Your task to perform on an android device: star an email in the gmail app Image 0: 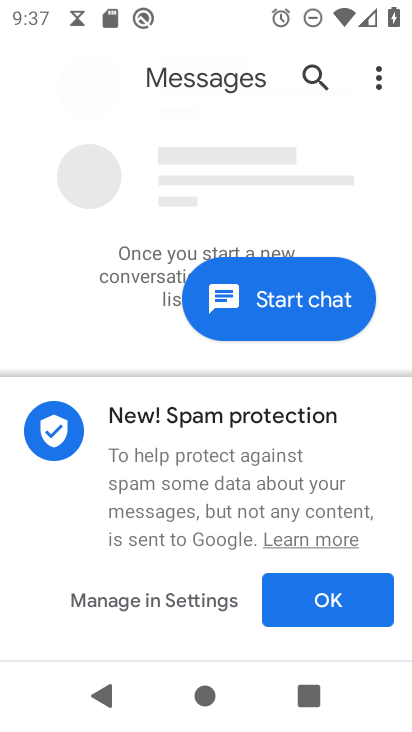
Step 0: press home button
Your task to perform on an android device: star an email in the gmail app Image 1: 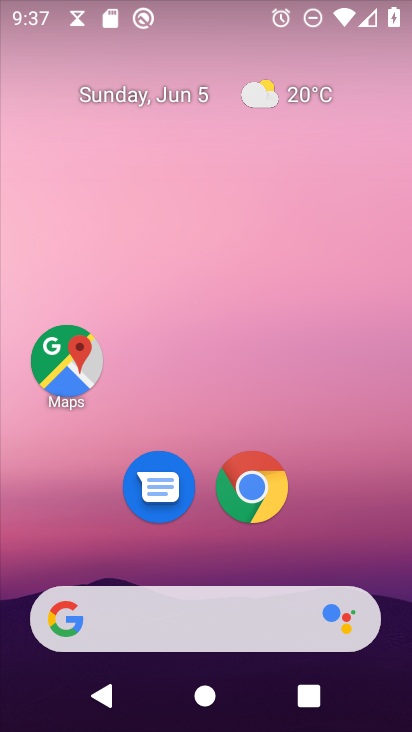
Step 1: drag from (150, 566) to (222, 140)
Your task to perform on an android device: star an email in the gmail app Image 2: 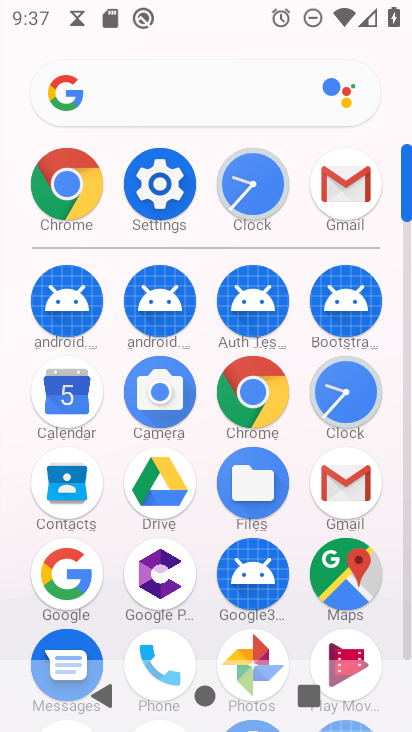
Step 2: click (338, 184)
Your task to perform on an android device: star an email in the gmail app Image 3: 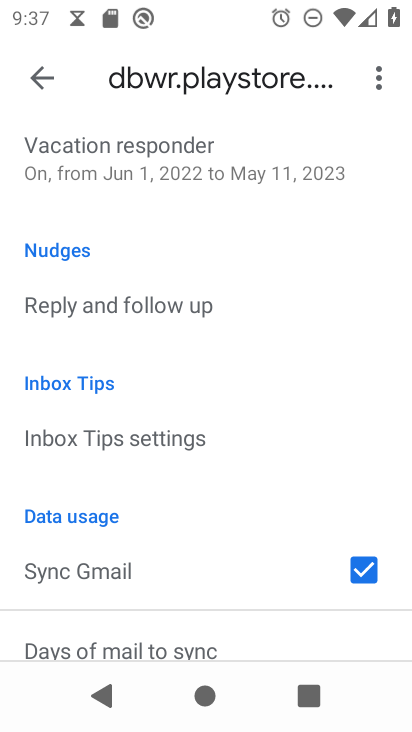
Step 3: click (43, 80)
Your task to perform on an android device: star an email in the gmail app Image 4: 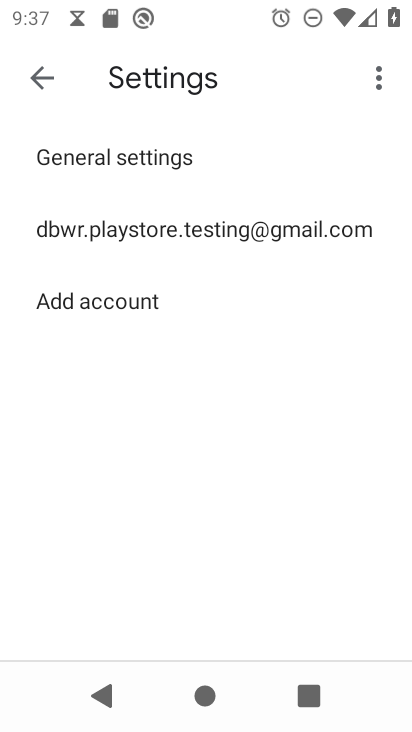
Step 4: click (43, 80)
Your task to perform on an android device: star an email in the gmail app Image 5: 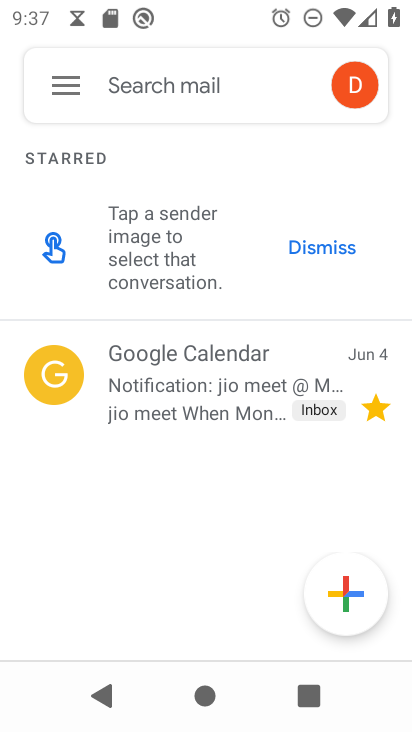
Step 5: click (48, 85)
Your task to perform on an android device: star an email in the gmail app Image 6: 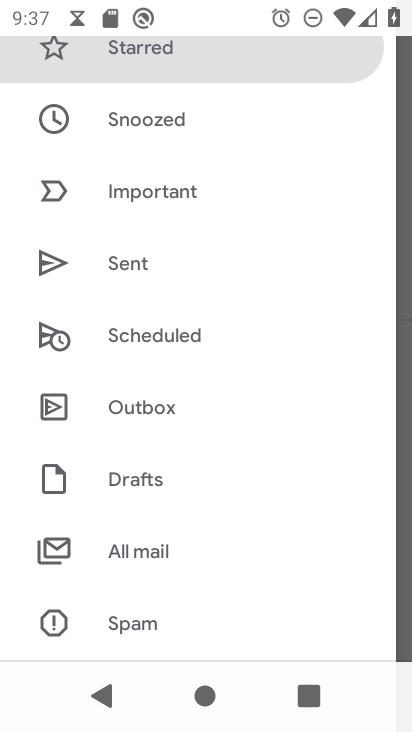
Step 6: click (162, 58)
Your task to perform on an android device: star an email in the gmail app Image 7: 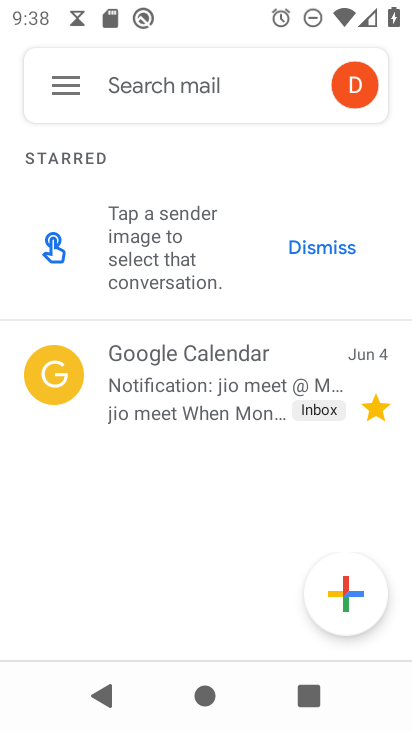
Step 7: task complete